Your task to perform on an android device: Go to battery settings Image 0: 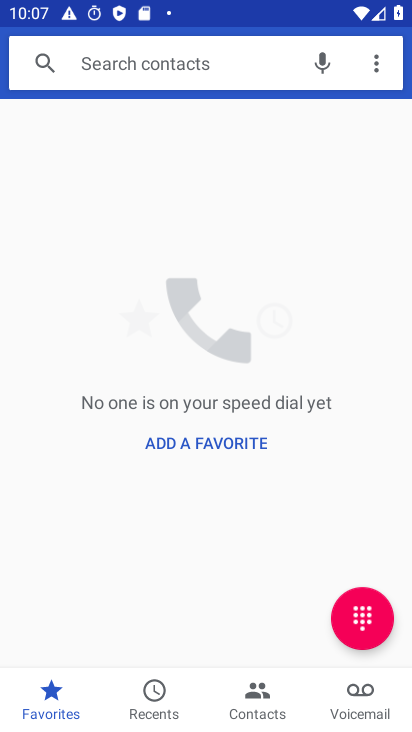
Step 0: press home button
Your task to perform on an android device: Go to battery settings Image 1: 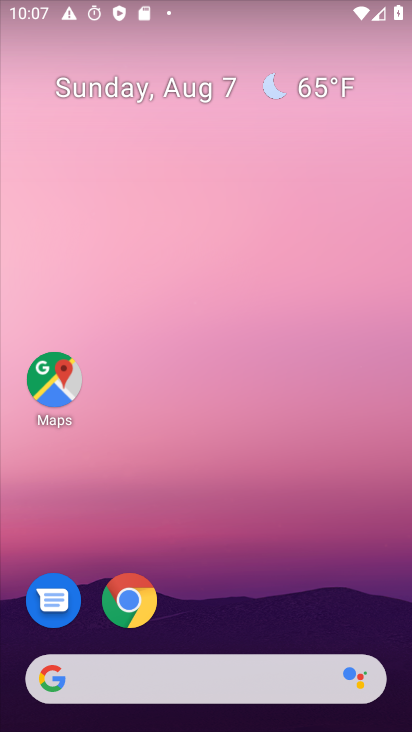
Step 1: drag from (239, 664) to (254, 187)
Your task to perform on an android device: Go to battery settings Image 2: 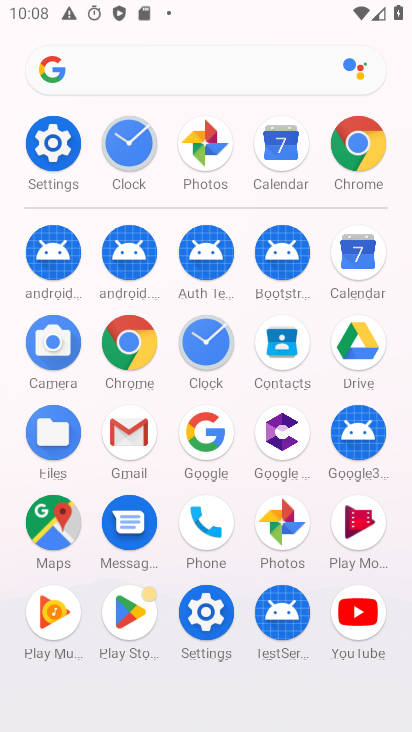
Step 2: click (211, 623)
Your task to perform on an android device: Go to battery settings Image 3: 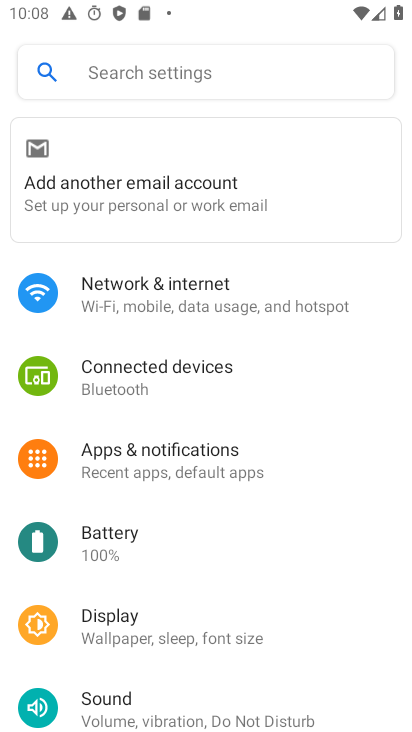
Step 3: click (190, 531)
Your task to perform on an android device: Go to battery settings Image 4: 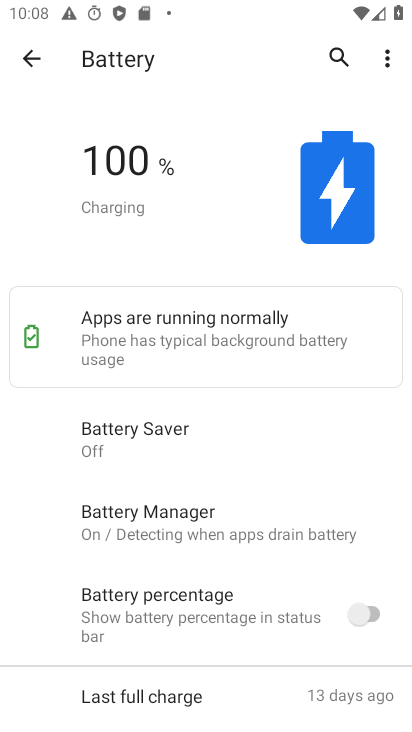
Step 4: task complete